Your task to perform on an android device: Go to Wikipedia Image 0: 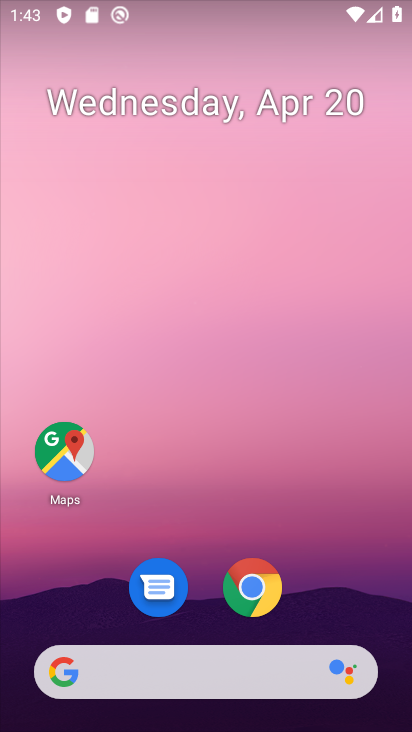
Step 0: click (266, 570)
Your task to perform on an android device: Go to Wikipedia Image 1: 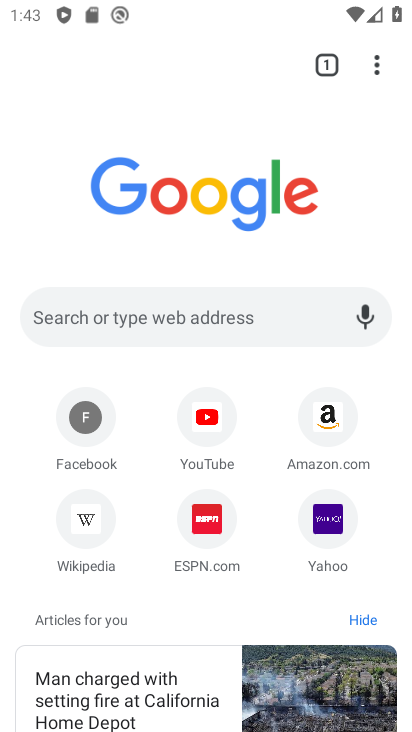
Step 1: click (87, 531)
Your task to perform on an android device: Go to Wikipedia Image 2: 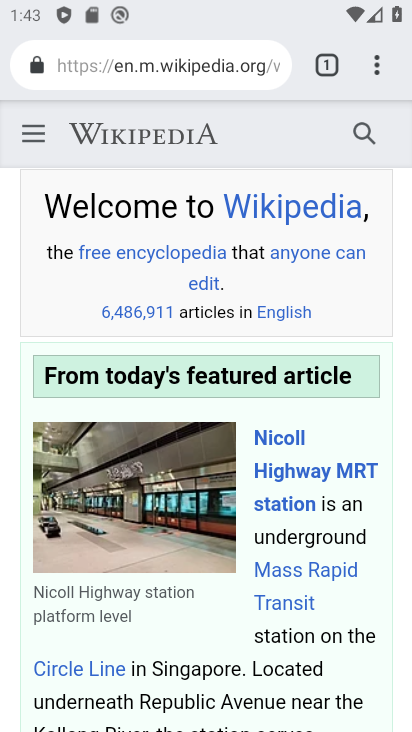
Step 2: task complete